Your task to perform on an android device: toggle notification dots Image 0: 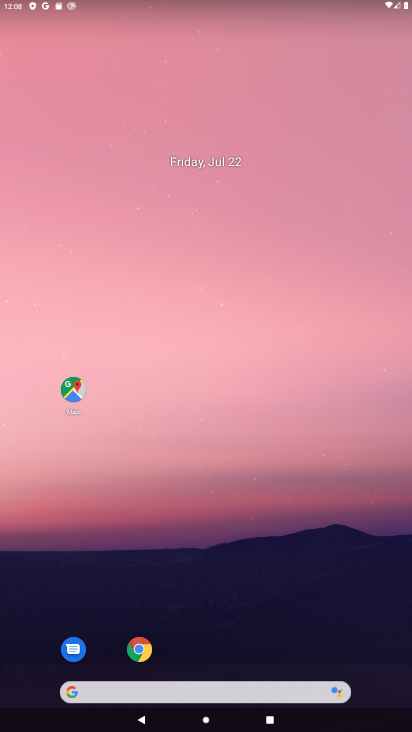
Step 0: drag from (291, 591) to (184, 182)
Your task to perform on an android device: toggle notification dots Image 1: 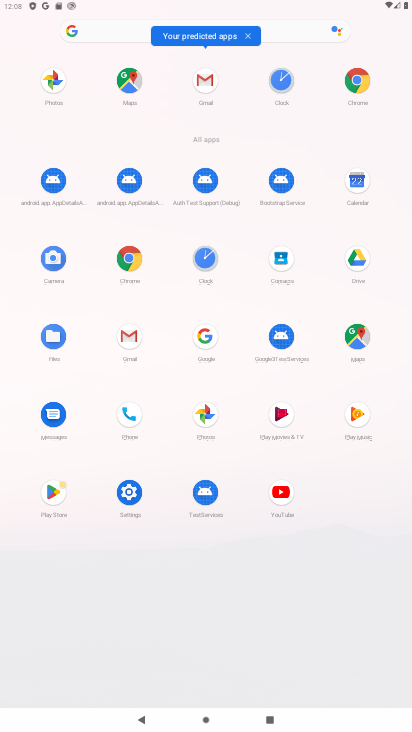
Step 1: click (141, 499)
Your task to perform on an android device: toggle notification dots Image 2: 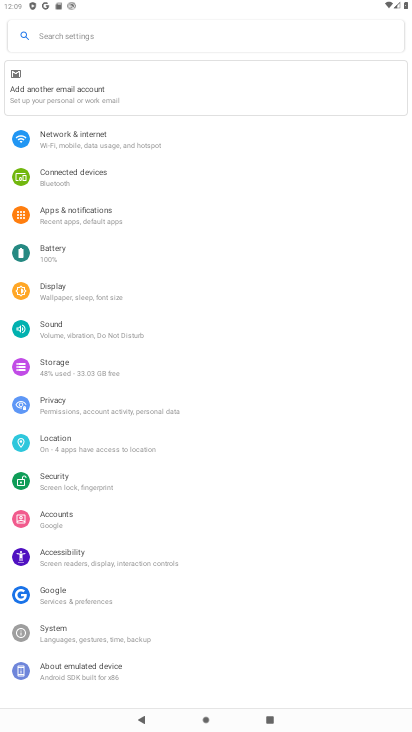
Step 2: click (83, 220)
Your task to perform on an android device: toggle notification dots Image 3: 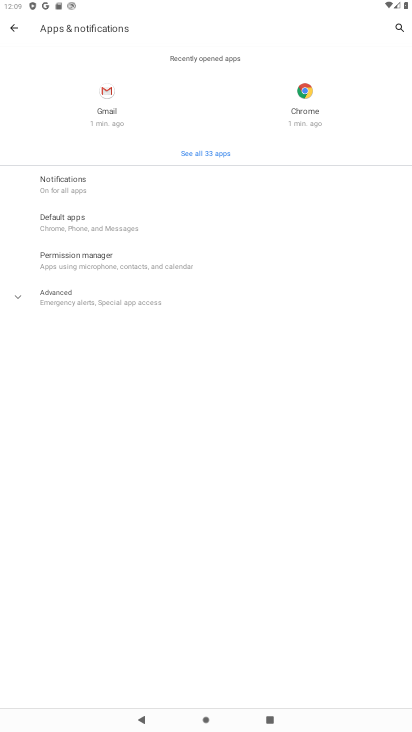
Step 3: click (77, 186)
Your task to perform on an android device: toggle notification dots Image 4: 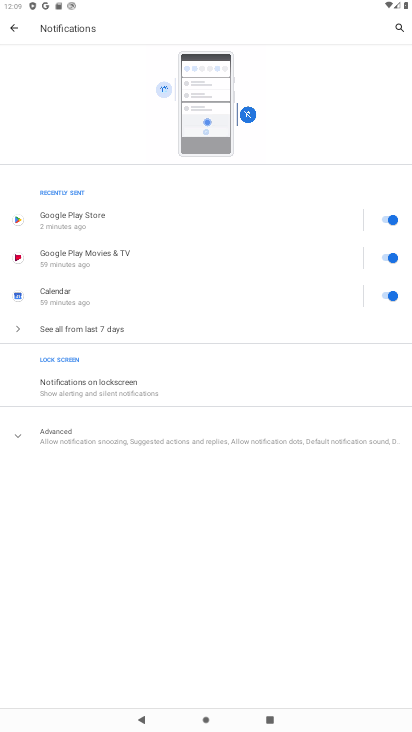
Step 4: click (98, 429)
Your task to perform on an android device: toggle notification dots Image 5: 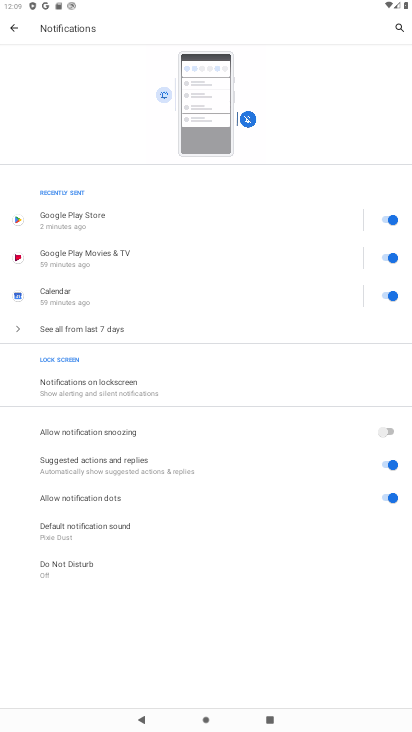
Step 5: click (392, 503)
Your task to perform on an android device: toggle notification dots Image 6: 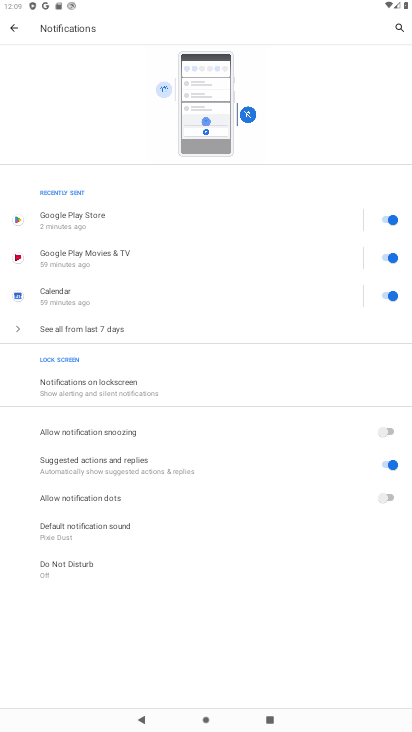
Step 6: task complete